Your task to perform on an android device: open a bookmark in the chrome app Image 0: 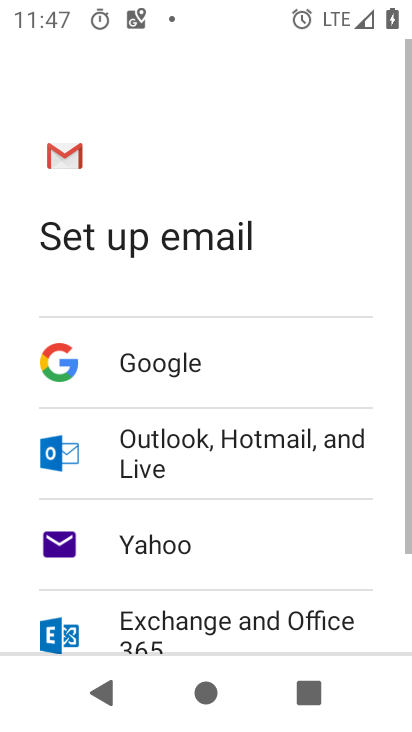
Step 0: press back button
Your task to perform on an android device: open a bookmark in the chrome app Image 1: 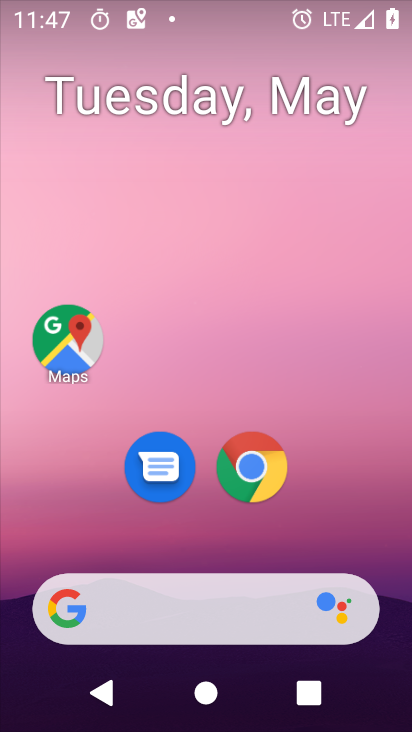
Step 1: drag from (327, 502) to (195, 18)
Your task to perform on an android device: open a bookmark in the chrome app Image 2: 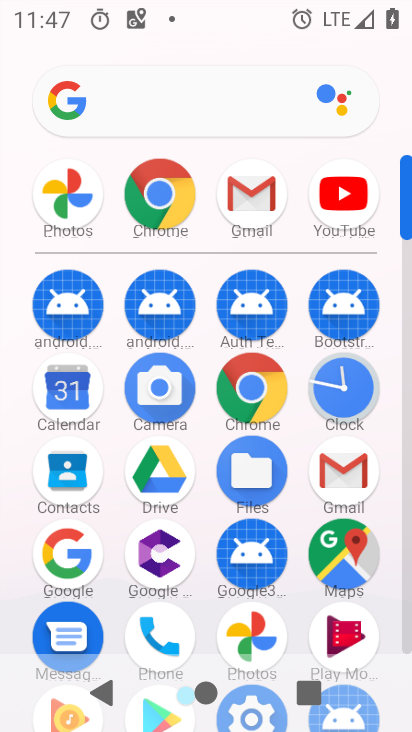
Step 2: drag from (22, 565) to (7, 218)
Your task to perform on an android device: open a bookmark in the chrome app Image 3: 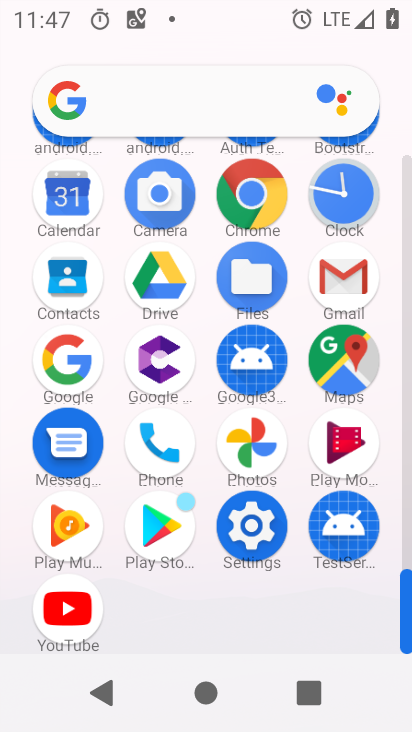
Step 3: click (251, 182)
Your task to perform on an android device: open a bookmark in the chrome app Image 4: 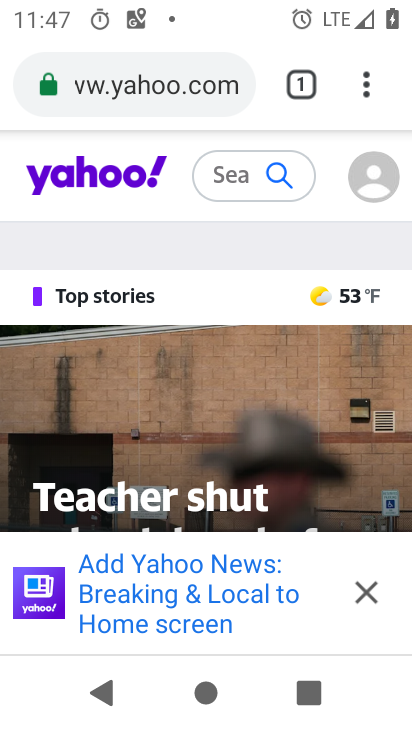
Step 4: task complete